Your task to perform on an android device: What's the weather going to be tomorrow? Image 0: 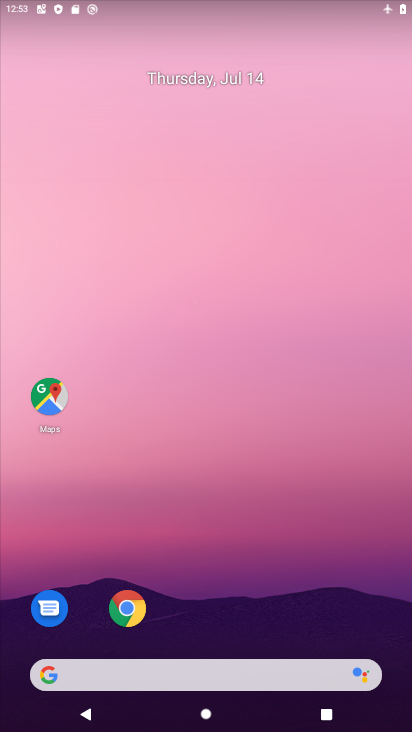
Step 0: click (233, 680)
Your task to perform on an android device: What's the weather going to be tomorrow? Image 1: 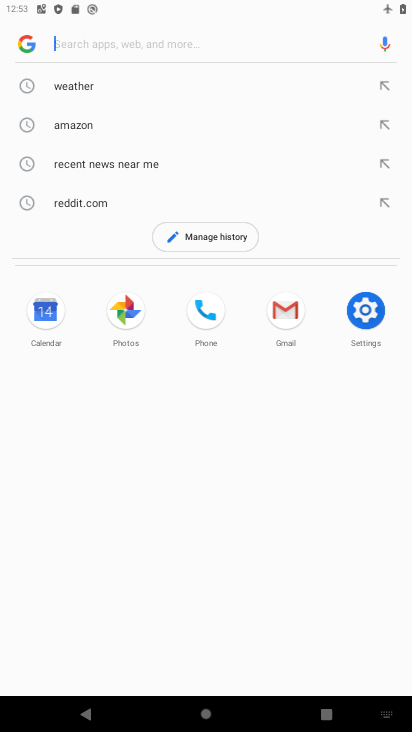
Step 1: click (96, 90)
Your task to perform on an android device: What's the weather going to be tomorrow? Image 2: 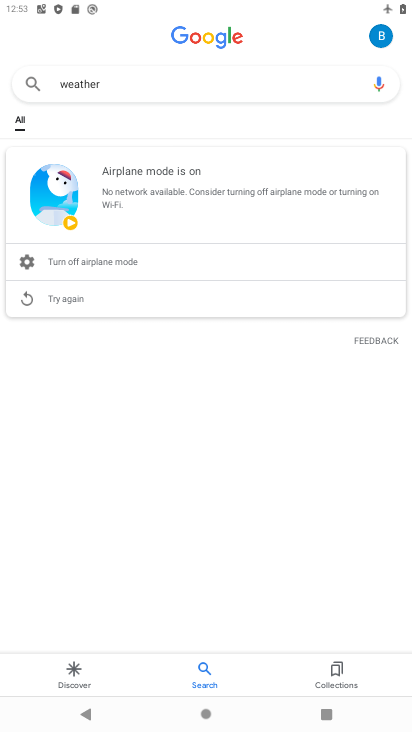
Step 2: drag from (388, 21) to (344, 424)
Your task to perform on an android device: What's the weather going to be tomorrow? Image 3: 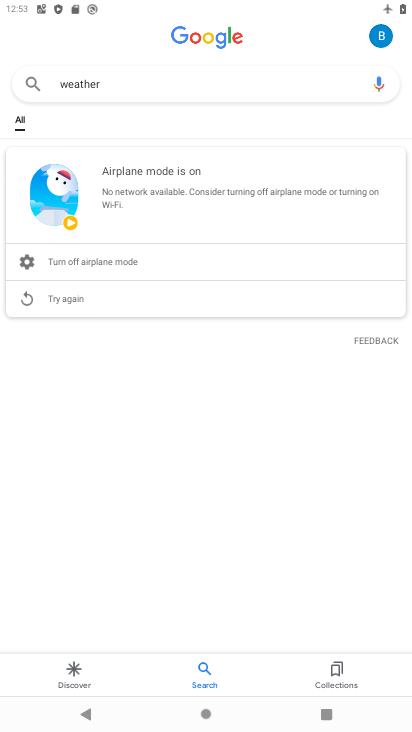
Step 3: drag from (369, 0) to (309, 470)
Your task to perform on an android device: What's the weather going to be tomorrow? Image 4: 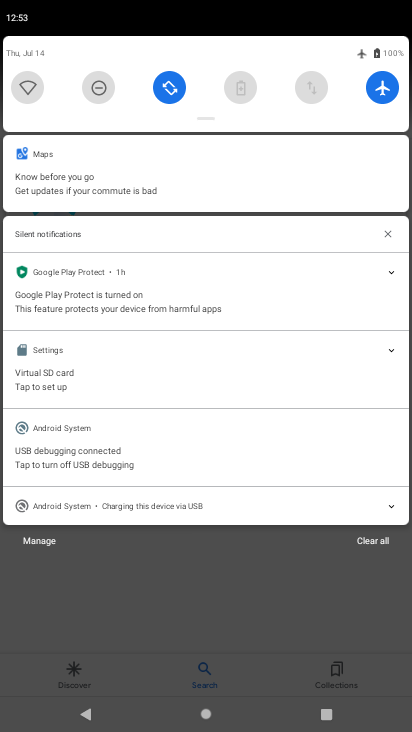
Step 4: click (384, 105)
Your task to perform on an android device: What's the weather going to be tomorrow? Image 5: 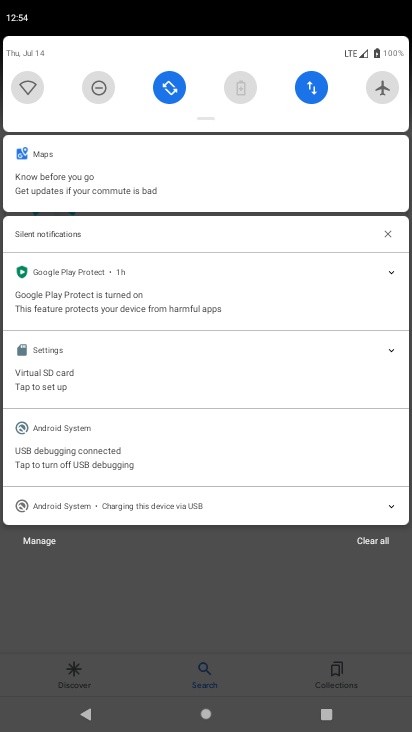
Step 5: task complete